Your task to perform on an android device: Is it going to rain this weekend? Image 0: 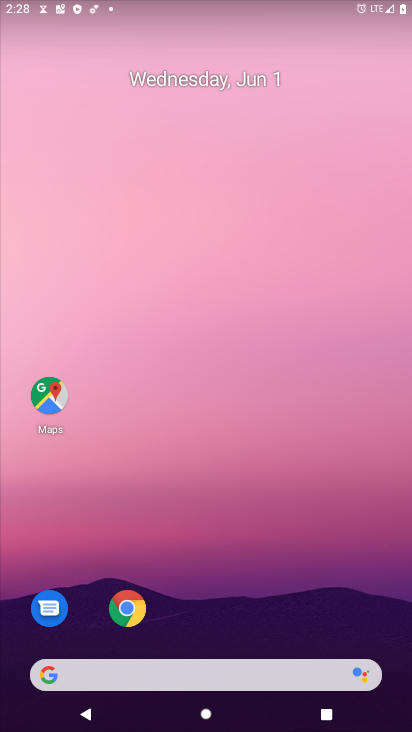
Step 0: click (134, 678)
Your task to perform on an android device: Is it going to rain this weekend? Image 1: 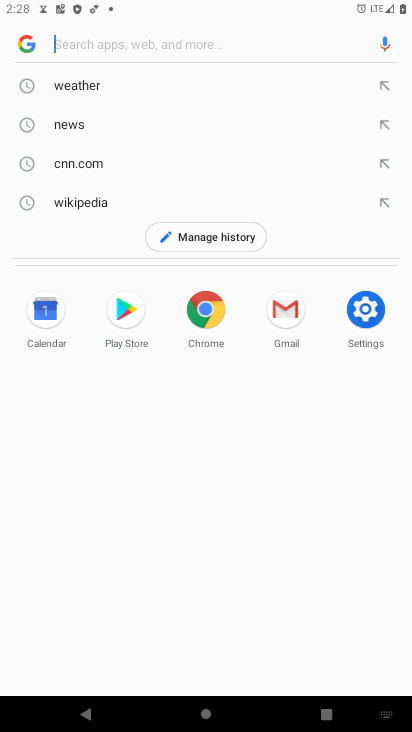
Step 1: click (180, 83)
Your task to perform on an android device: Is it going to rain this weekend? Image 2: 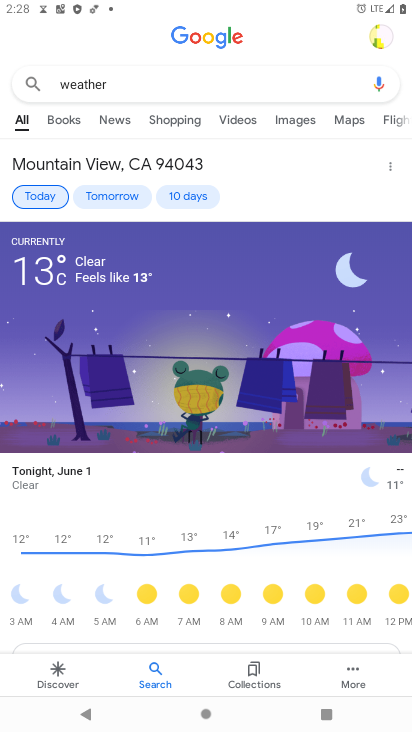
Step 2: click (193, 201)
Your task to perform on an android device: Is it going to rain this weekend? Image 3: 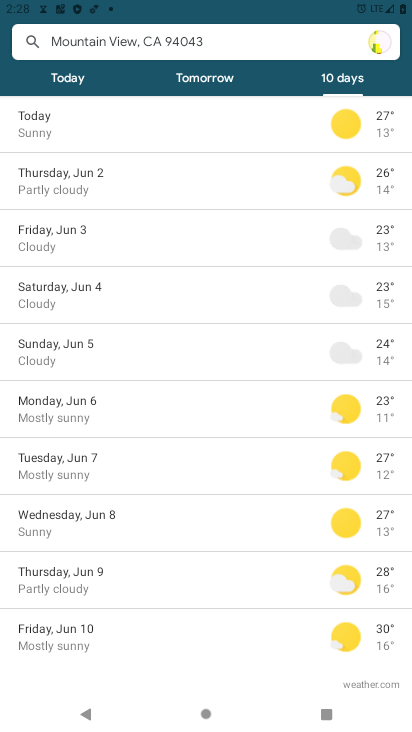
Step 3: task complete